Your task to perform on an android device: open device folders in google photos Image 0: 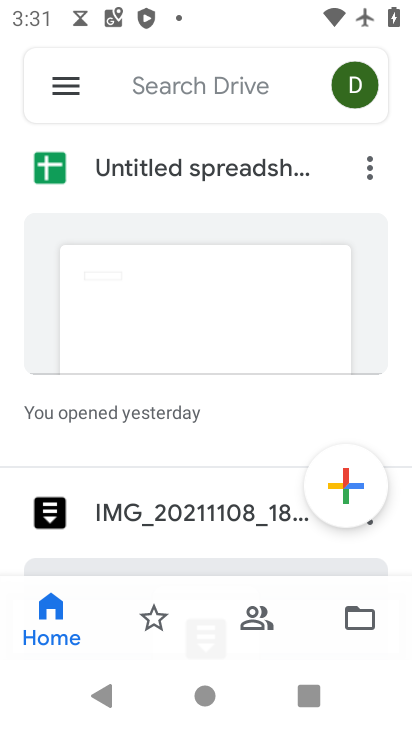
Step 0: press home button
Your task to perform on an android device: open device folders in google photos Image 1: 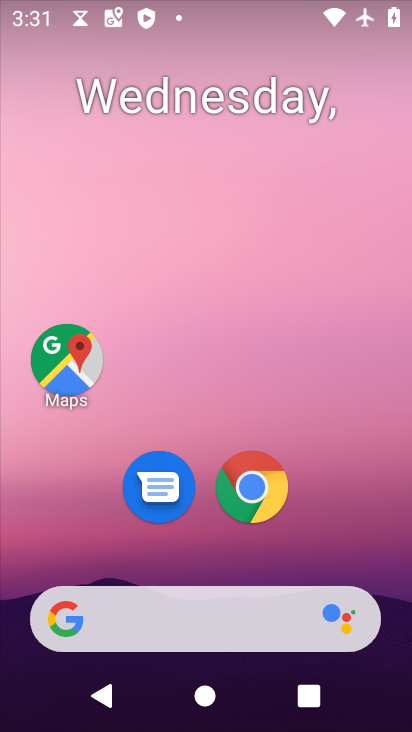
Step 1: drag from (403, 538) to (391, 151)
Your task to perform on an android device: open device folders in google photos Image 2: 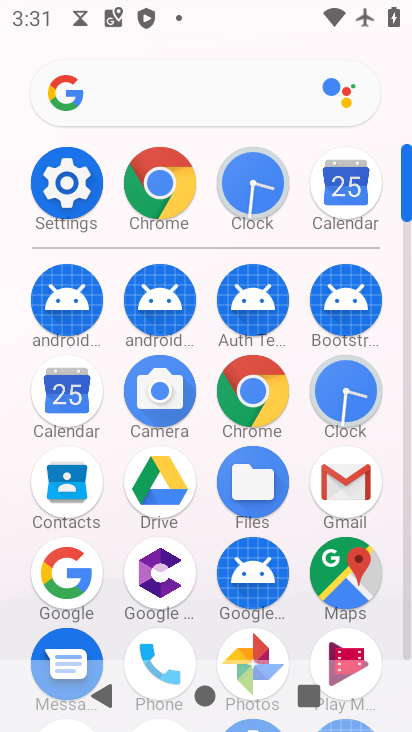
Step 2: drag from (405, 650) to (404, 382)
Your task to perform on an android device: open device folders in google photos Image 3: 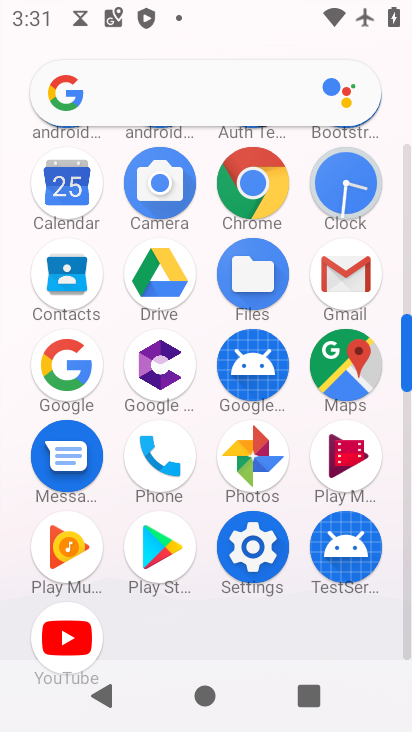
Step 3: click (251, 431)
Your task to perform on an android device: open device folders in google photos Image 4: 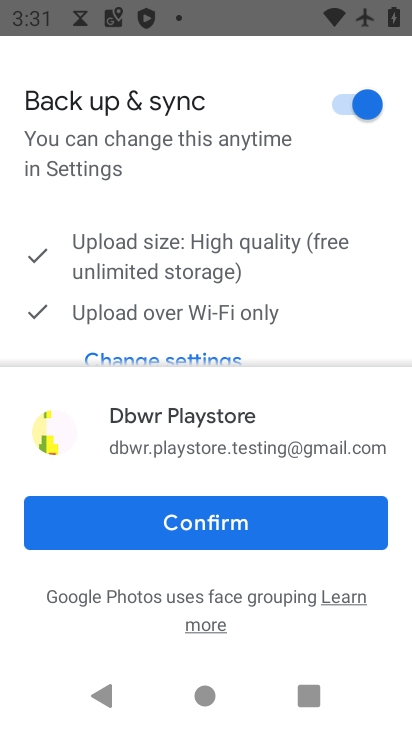
Step 4: click (233, 513)
Your task to perform on an android device: open device folders in google photos Image 5: 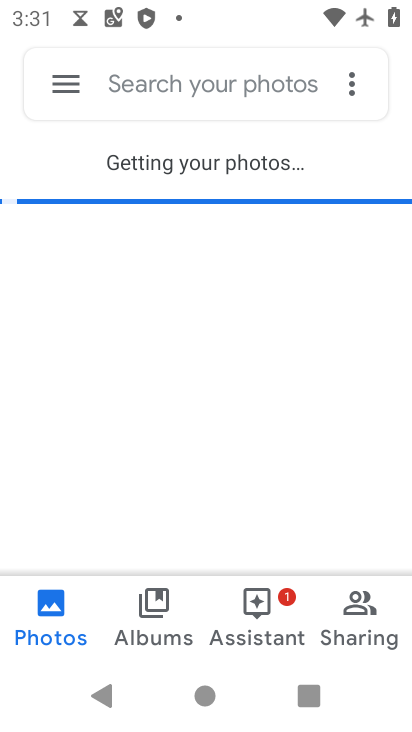
Step 5: click (70, 81)
Your task to perform on an android device: open device folders in google photos Image 6: 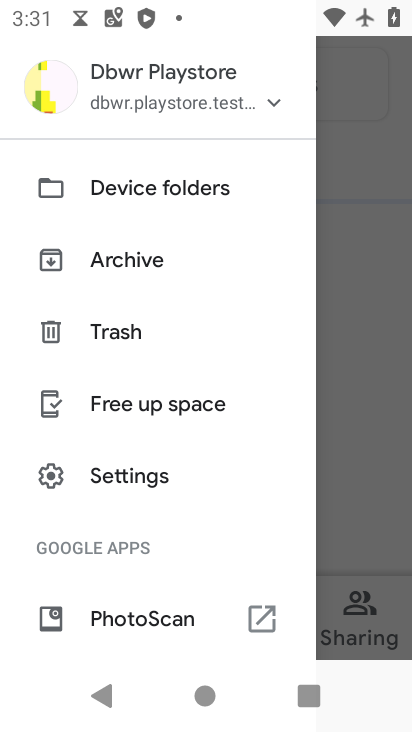
Step 6: click (86, 194)
Your task to perform on an android device: open device folders in google photos Image 7: 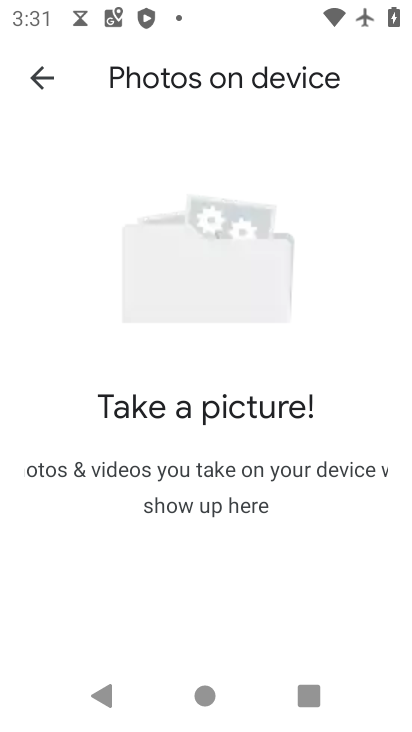
Step 7: task complete